Your task to perform on an android device: empty trash in the gmail app Image 0: 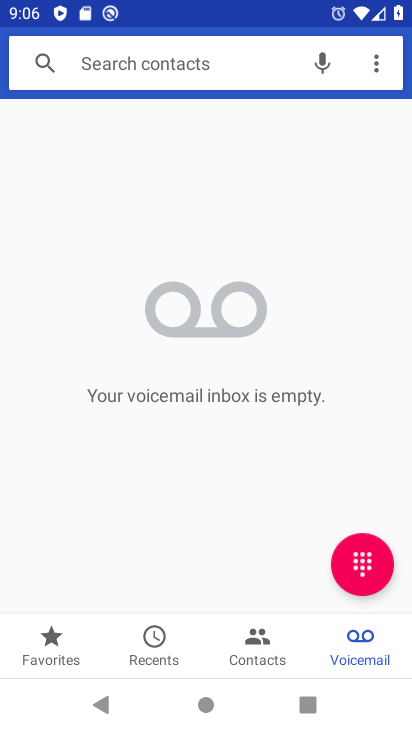
Step 0: press back button
Your task to perform on an android device: empty trash in the gmail app Image 1: 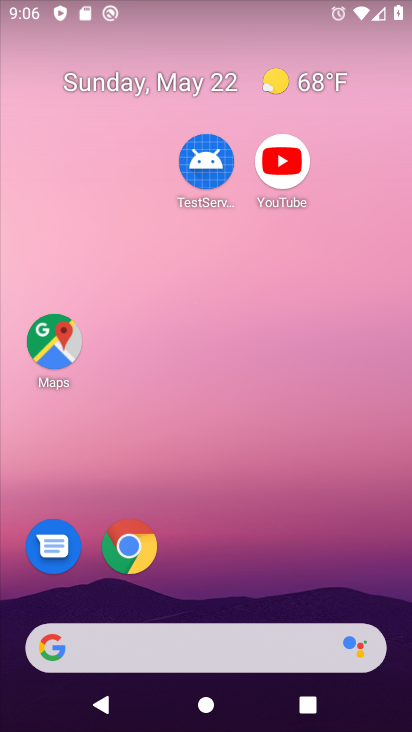
Step 1: drag from (243, 718) to (54, 47)
Your task to perform on an android device: empty trash in the gmail app Image 2: 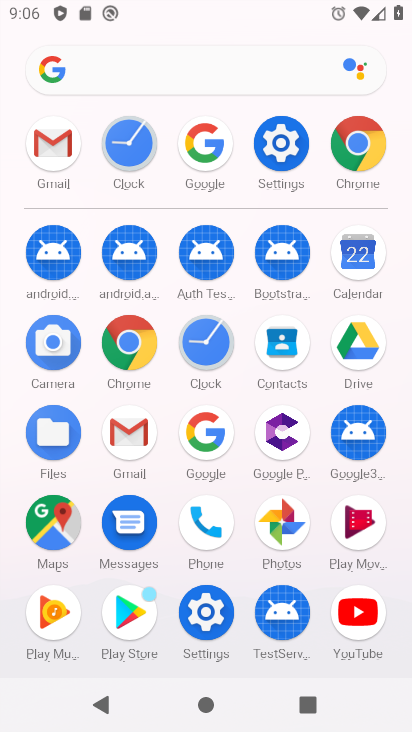
Step 2: drag from (133, 446) to (138, 393)
Your task to perform on an android device: empty trash in the gmail app Image 3: 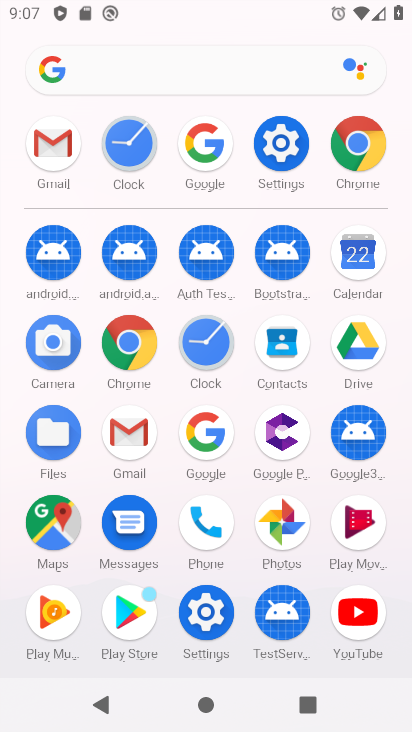
Step 3: click (115, 447)
Your task to perform on an android device: empty trash in the gmail app Image 4: 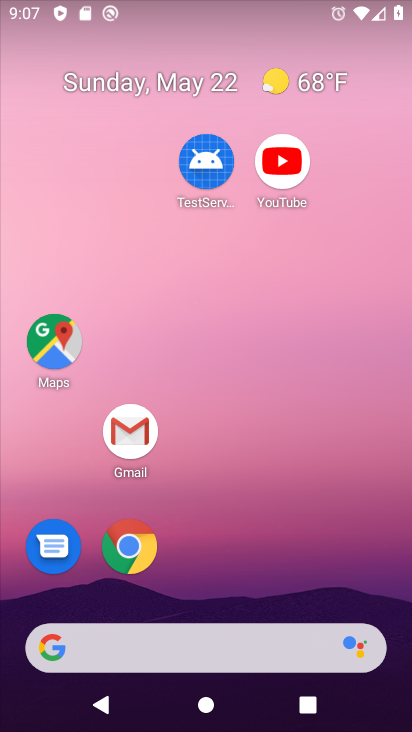
Step 4: drag from (267, 697) to (172, 46)
Your task to perform on an android device: empty trash in the gmail app Image 5: 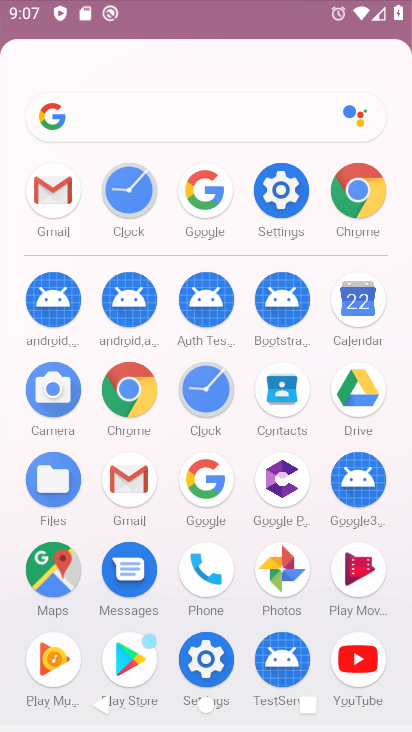
Step 5: drag from (220, 506) to (231, 12)
Your task to perform on an android device: empty trash in the gmail app Image 6: 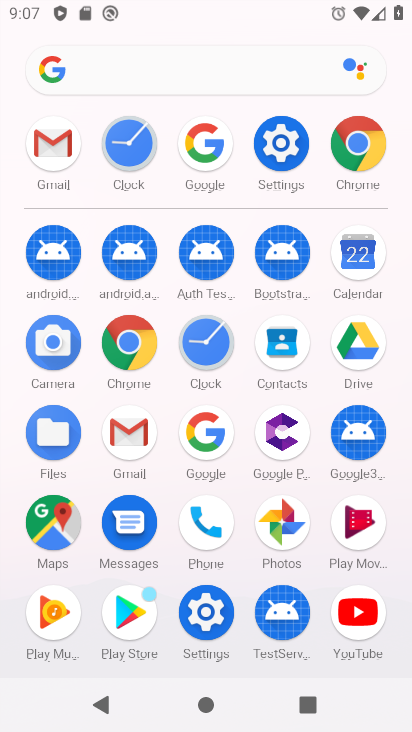
Step 6: click (43, 146)
Your task to perform on an android device: empty trash in the gmail app Image 7: 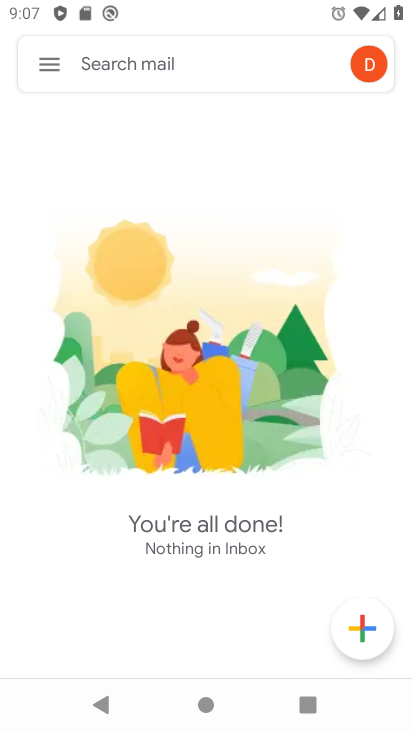
Step 7: click (49, 68)
Your task to perform on an android device: empty trash in the gmail app Image 8: 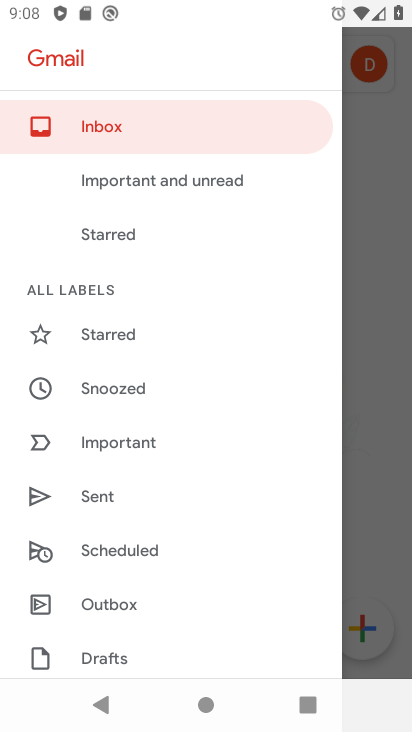
Step 8: drag from (124, 579) to (121, 166)
Your task to perform on an android device: empty trash in the gmail app Image 9: 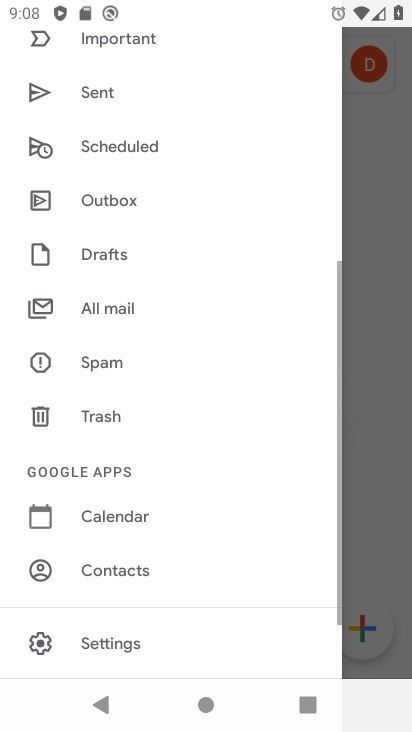
Step 9: drag from (145, 482) to (131, 261)
Your task to perform on an android device: empty trash in the gmail app Image 10: 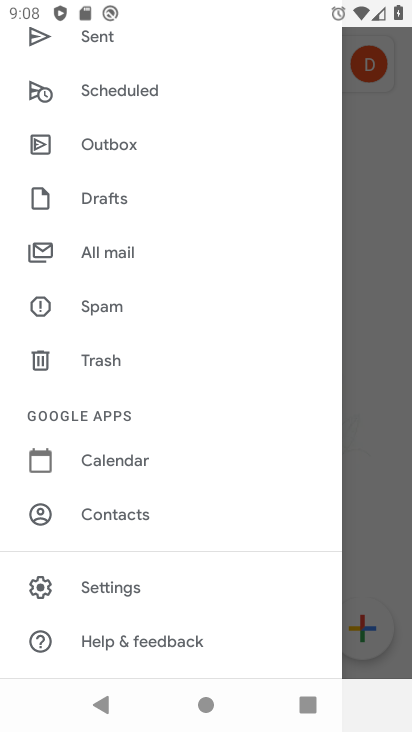
Step 10: click (98, 359)
Your task to perform on an android device: empty trash in the gmail app Image 11: 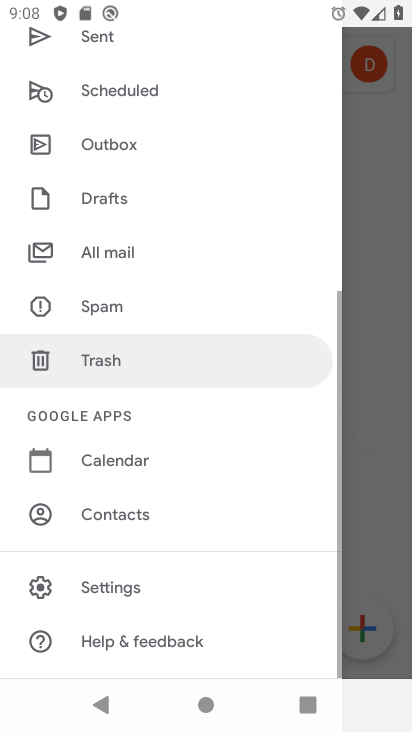
Step 11: click (97, 360)
Your task to perform on an android device: empty trash in the gmail app Image 12: 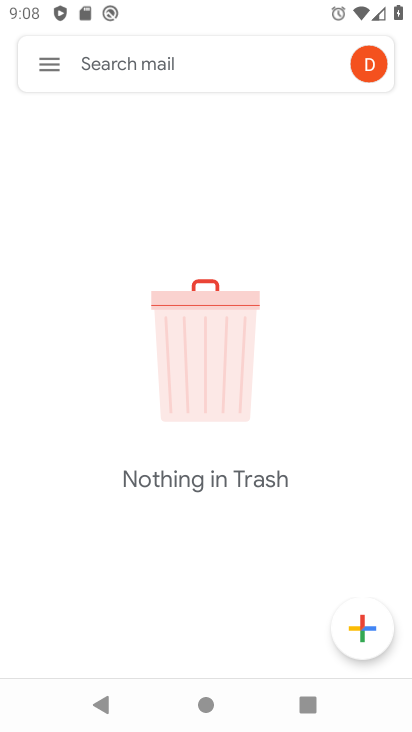
Step 12: task complete